Your task to perform on an android device: Open Google Chrome Image 0: 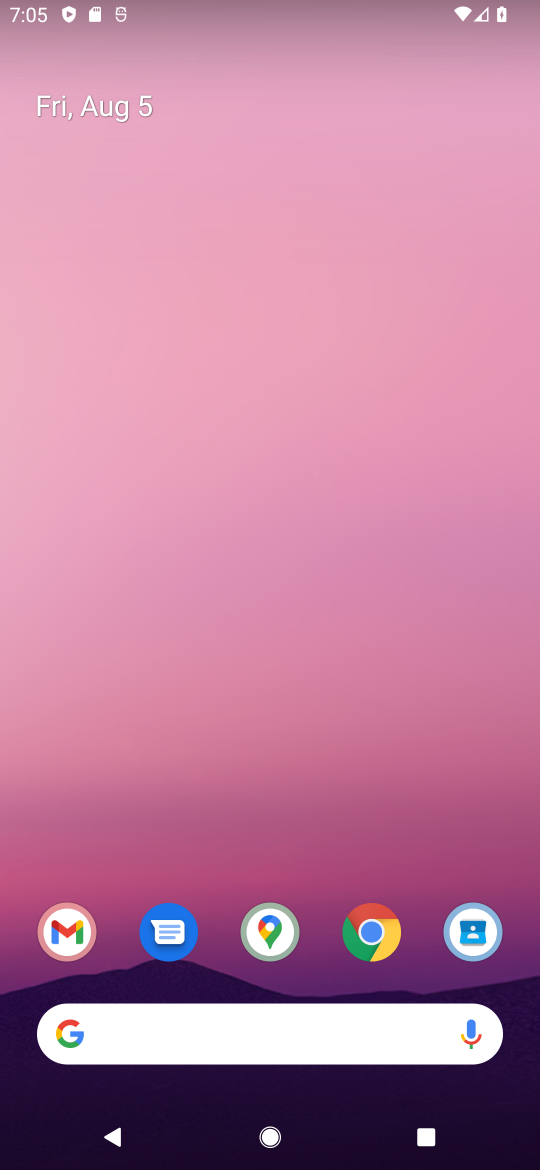
Step 0: drag from (311, 804) to (375, 265)
Your task to perform on an android device: Open Google Chrome Image 1: 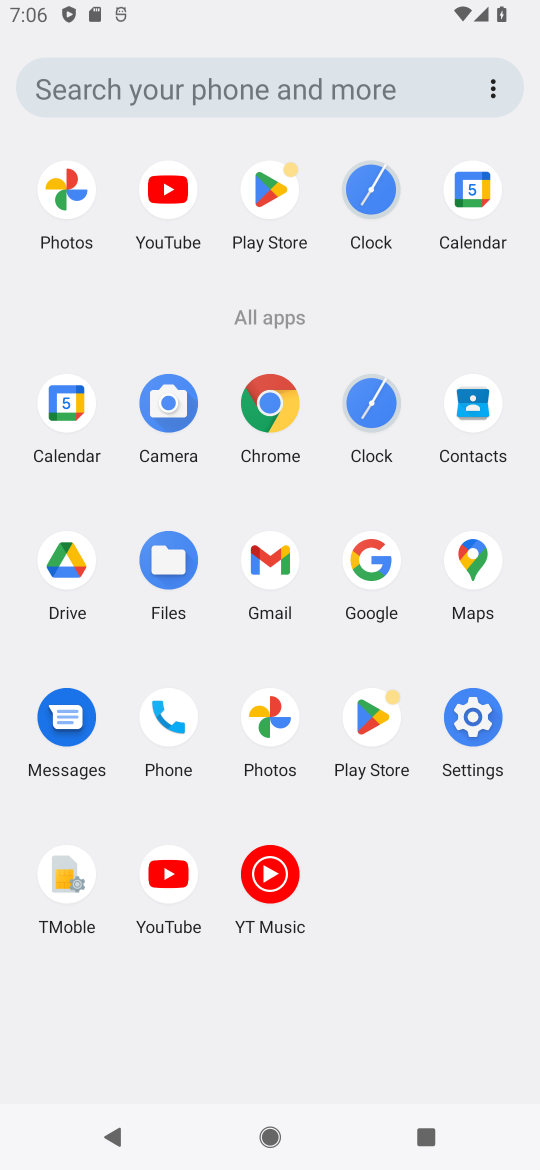
Step 1: click (280, 399)
Your task to perform on an android device: Open Google Chrome Image 2: 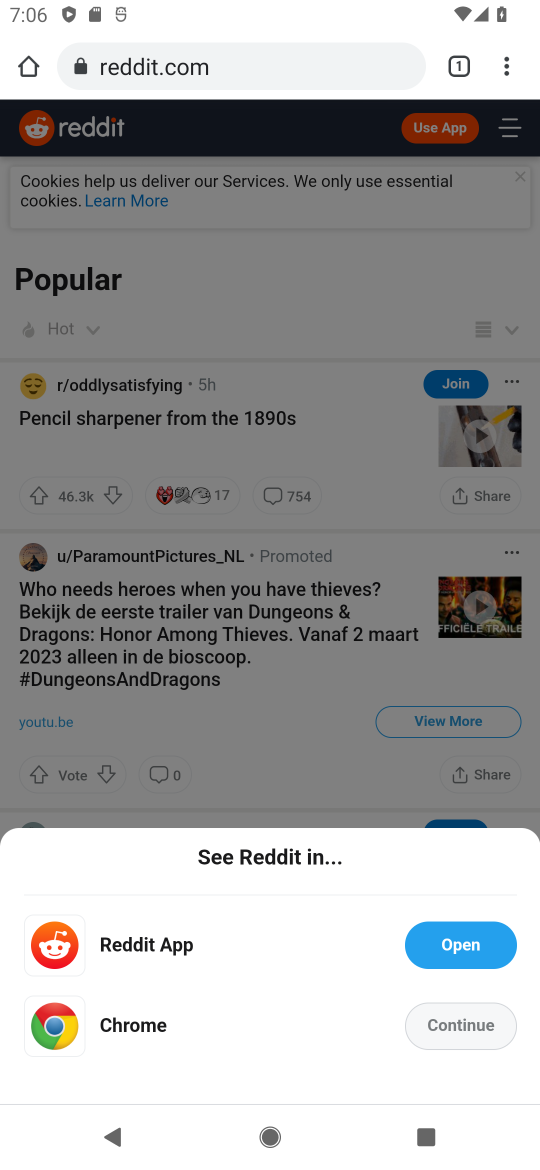
Step 2: task complete